Your task to perform on an android device: toggle priority inbox in the gmail app Image 0: 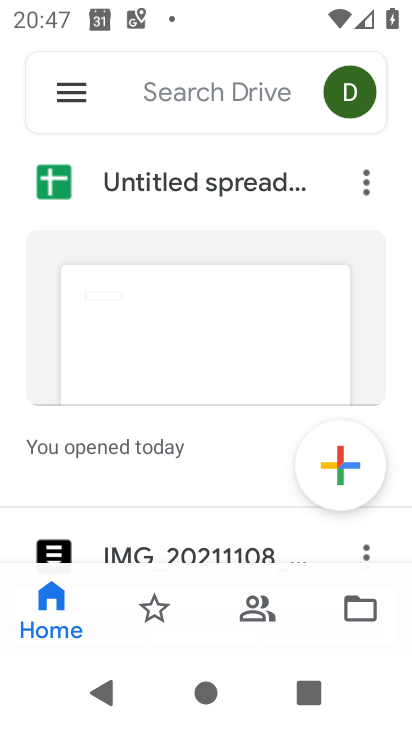
Step 0: press home button
Your task to perform on an android device: toggle priority inbox in the gmail app Image 1: 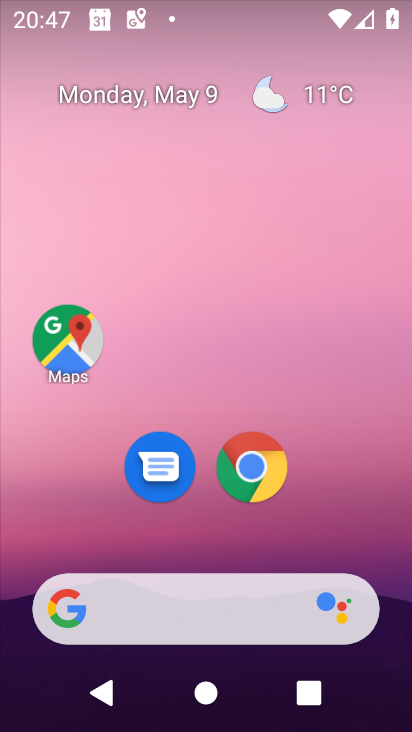
Step 1: drag from (313, 417) to (312, 190)
Your task to perform on an android device: toggle priority inbox in the gmail app Image 2: 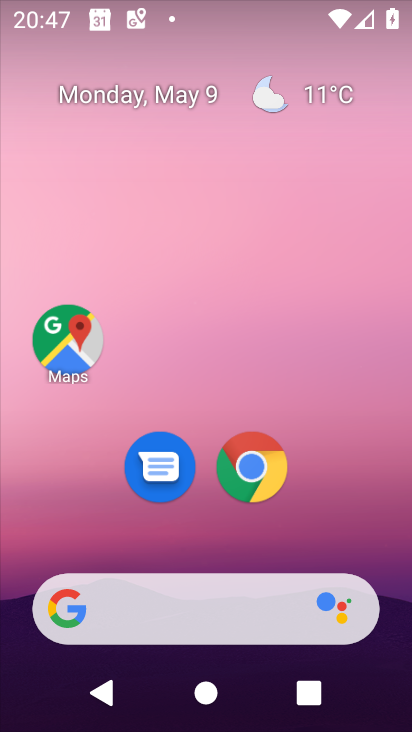
Step 2: drag from (335, 495) to (345, 259)
Your task to perform on an android device: toggle priority inbox in the gmail app Image 3: 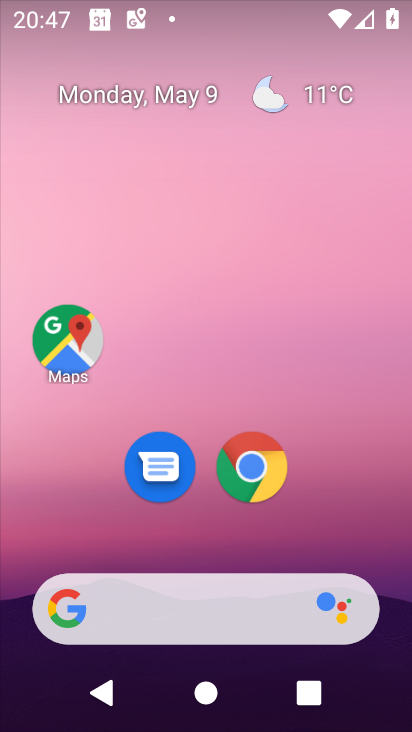
Step 3: drag from (370, 527) to (393, 257)
Your task to perform on an android device: toggle priority inbox in the gmail app Image 4: 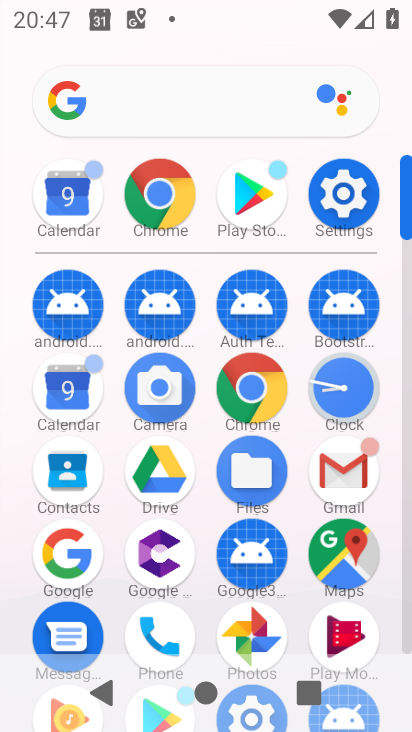
Step 4: click (326, 473)
Your task to perform on an android device: toggle priority inbox in the gmail app Image 5: 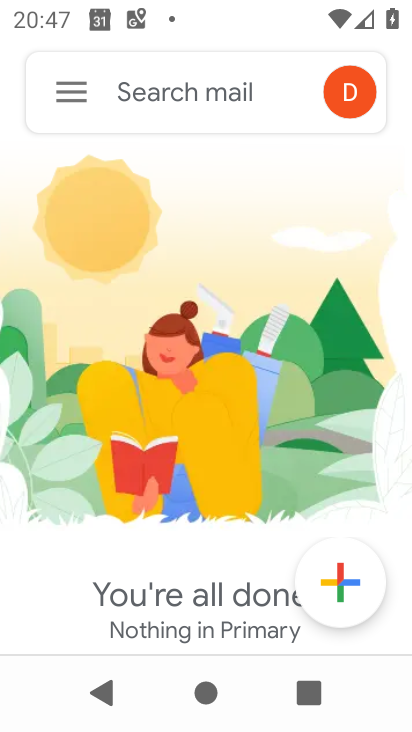
Step 5: click (63, 93)
Your task to perform on an android device: toggle priority inbox in the gmail app Image 6: 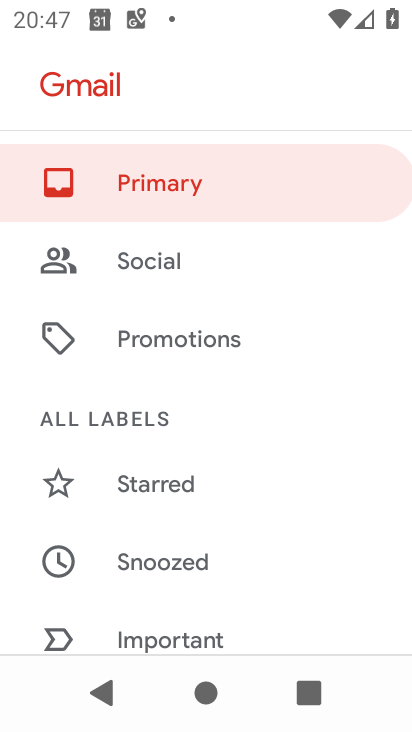
Step 6: drag from (238, 580) to (267, 114)
Your task to perform on an android device: toggle priority inbox in the gmail app Image 7: 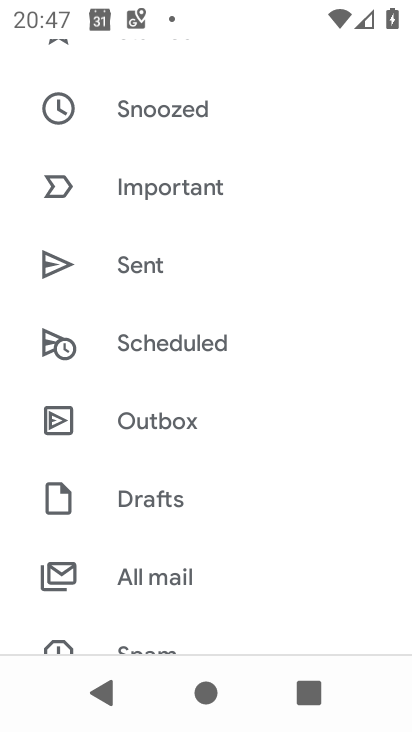
Step 7: drag from (244, 525) to (259, 216)
Your task to perform on an android device: toggle priority inbox in the gmail app Image 8: 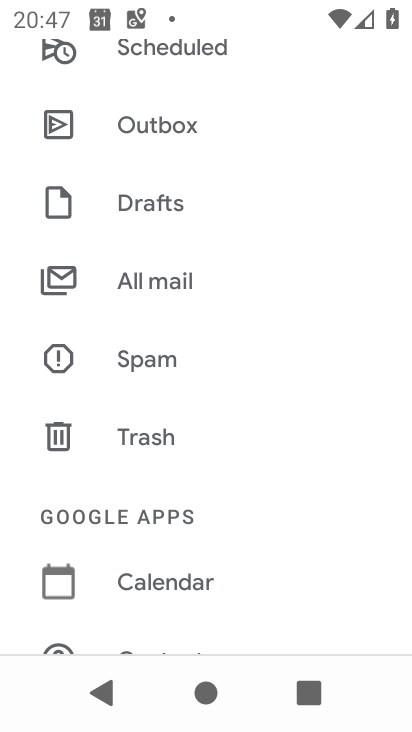
Step 8: drag from (221, 379) to (243, 207)
Your task to perform on an android device: toggle priority inbox in the gmail app Image 9: 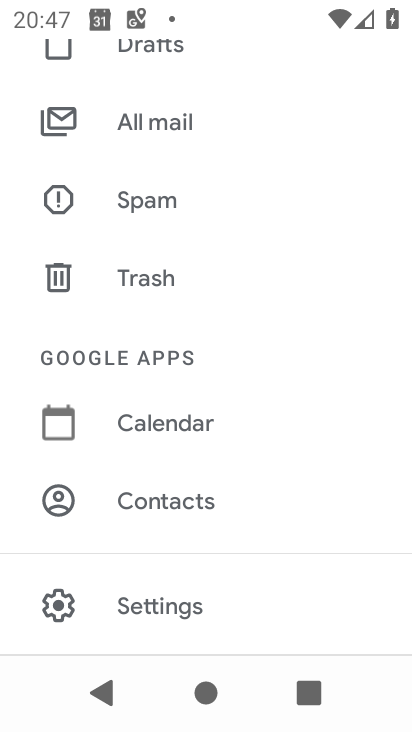
Step 9: click (133, 600)
Your task to perform on an android device: toggle priority inbox in the gmail app Image 10: 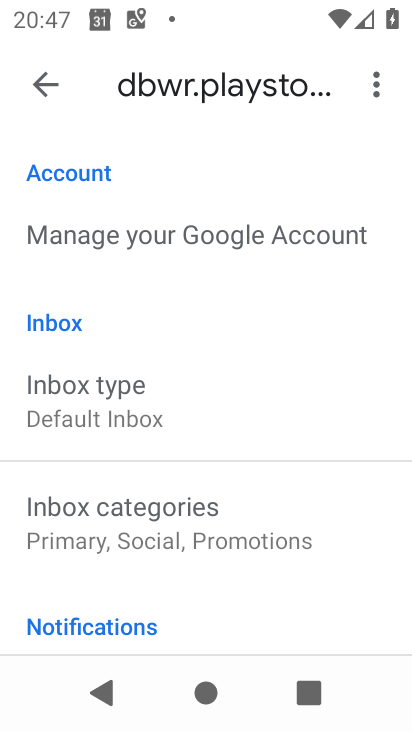
Step 10: drag from (231, 537) to (246, 432)
Your task to perform on an android device: toggle priority inbox in the gmail app Image 11: 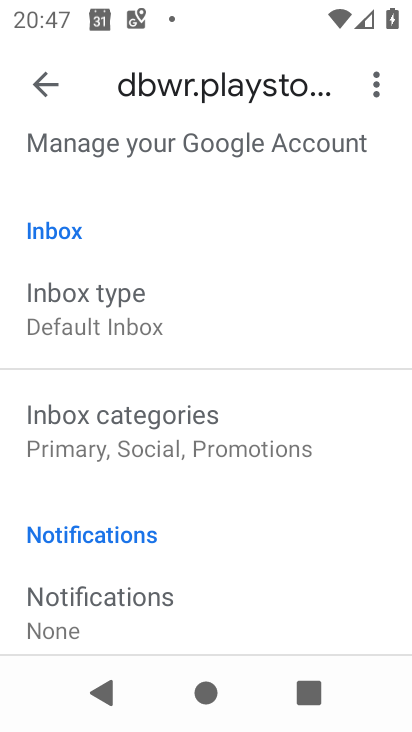
Step 11: click (118, 317)
Your task to perform on an android device: toggle priority inbox in the gmail app Image 12: 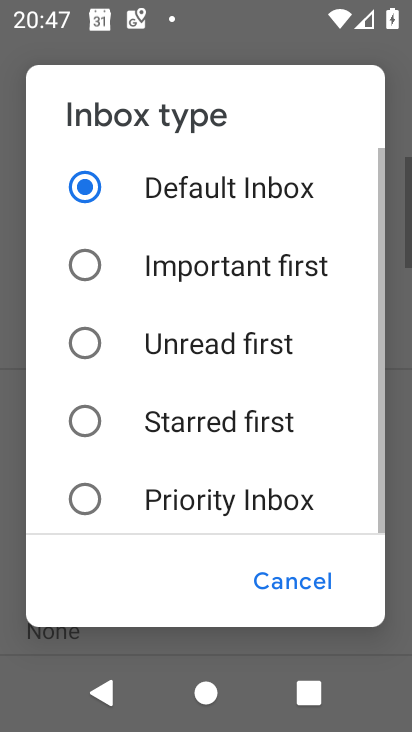
Step 12: click (184, 498)
Your task to perform on an android device: toggle priority inbox in the gmail app Image 13: 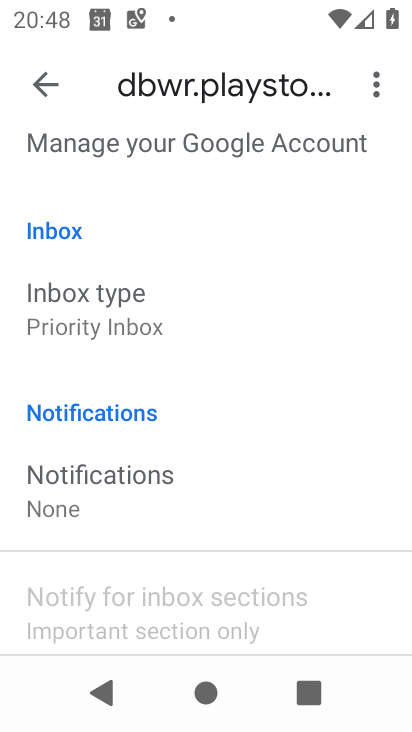
Step 13: task complete